Your task to perform on an android device: View the shopping cart on bestbuy.com. Search for "sony triple a" on bestbuy.com, select the first entry, and add it to the cart. Image 0: 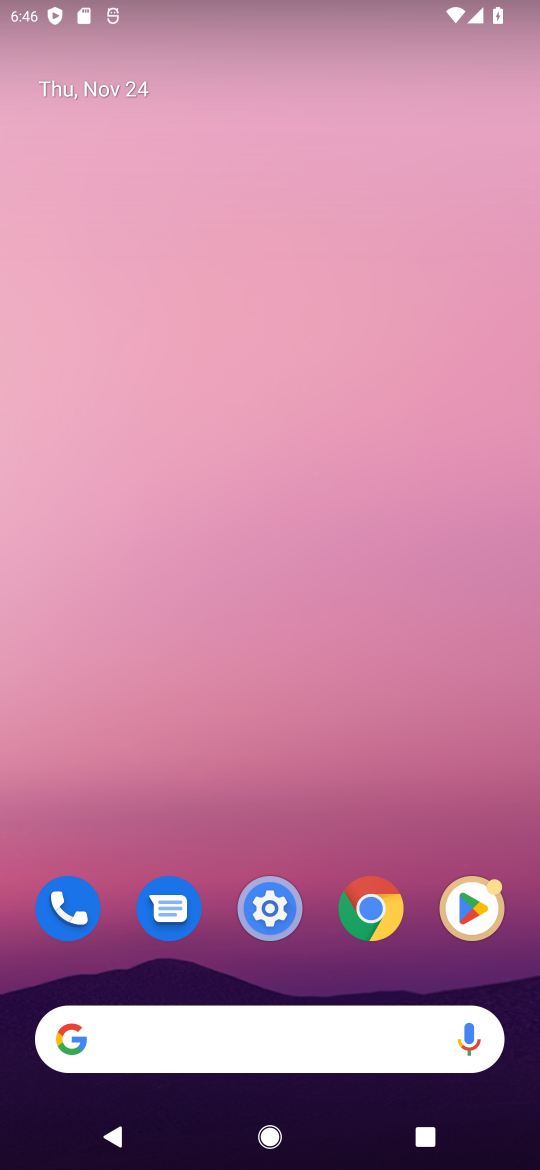
Step 0: click (126, 1050)
Your task to perform on an android device: View the shopping cart on bestbuy.com. Search for "sony triple a" on bestbuy.com, select the first entry, and add it to the cart. Image 1: 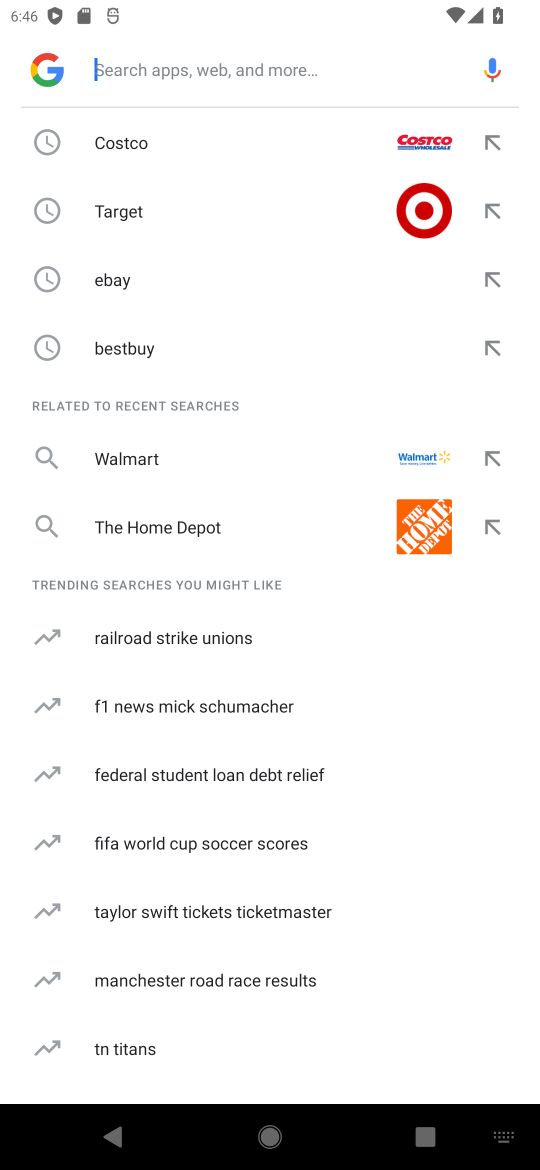
Step 1: type "bestbuy"
Your task to perform on an android device: View the shopping cart on bestbuy.com. Search for "sony triple a" on bestbuy.com, select the first entry, and add it to the cart. Image 2: 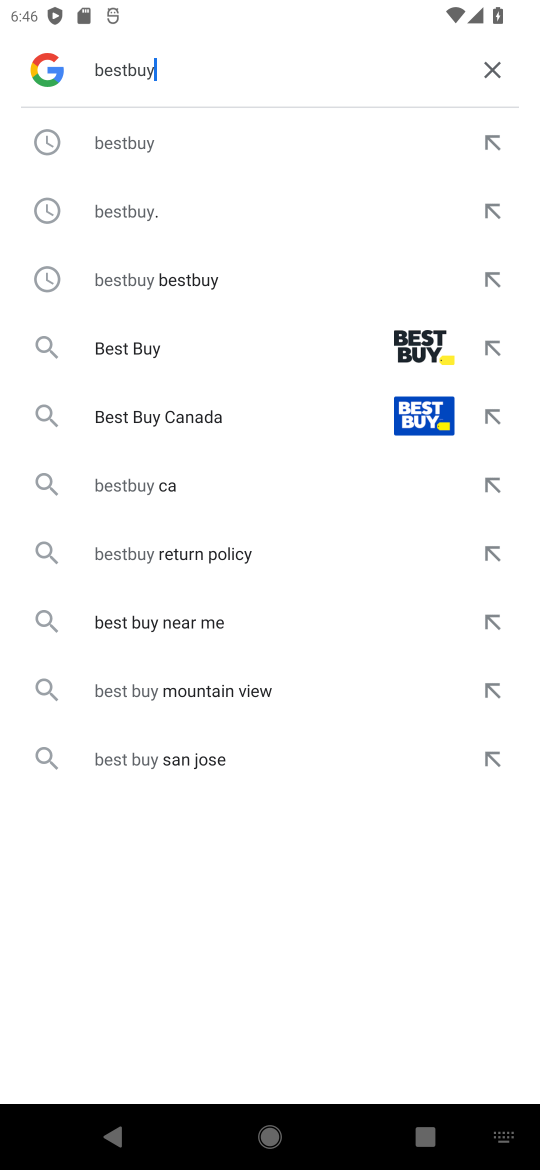
Step 2: click (174, 345)
Your task to perform on an android device: View the shopping cart on bestbuy.com. Search for "sony triple a" on bestbuy.com, select the first entry, and add it to the cart. Image 3: 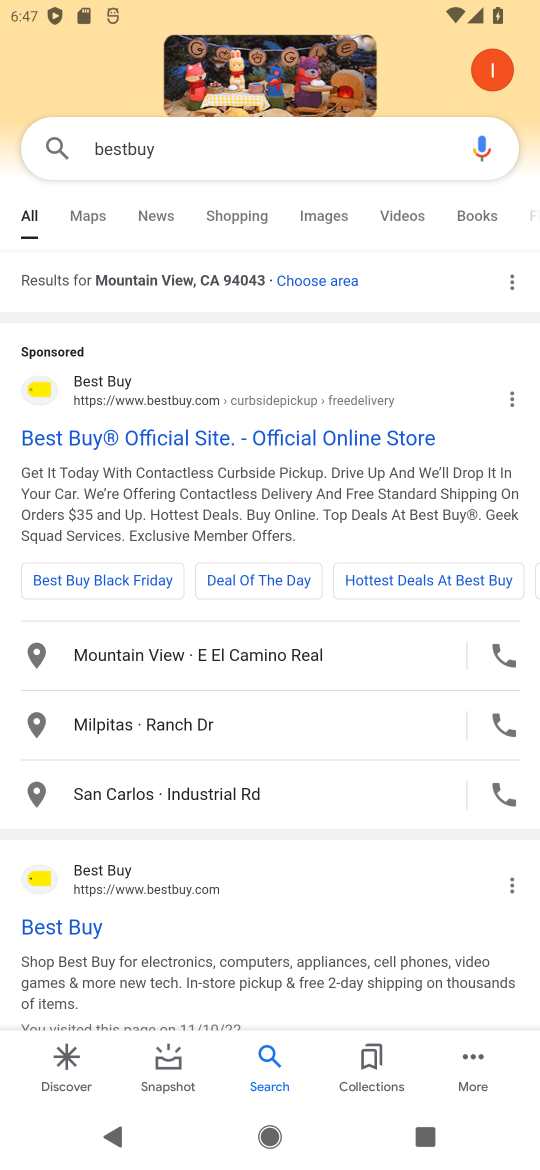
Step 3: click (151, 425)
Your task to perform on an android device: View the shopping cart on bestbuy.com. Search for "sony triple a" on bestbuy.com, select the first entry, and add it to the cart. Image 4: 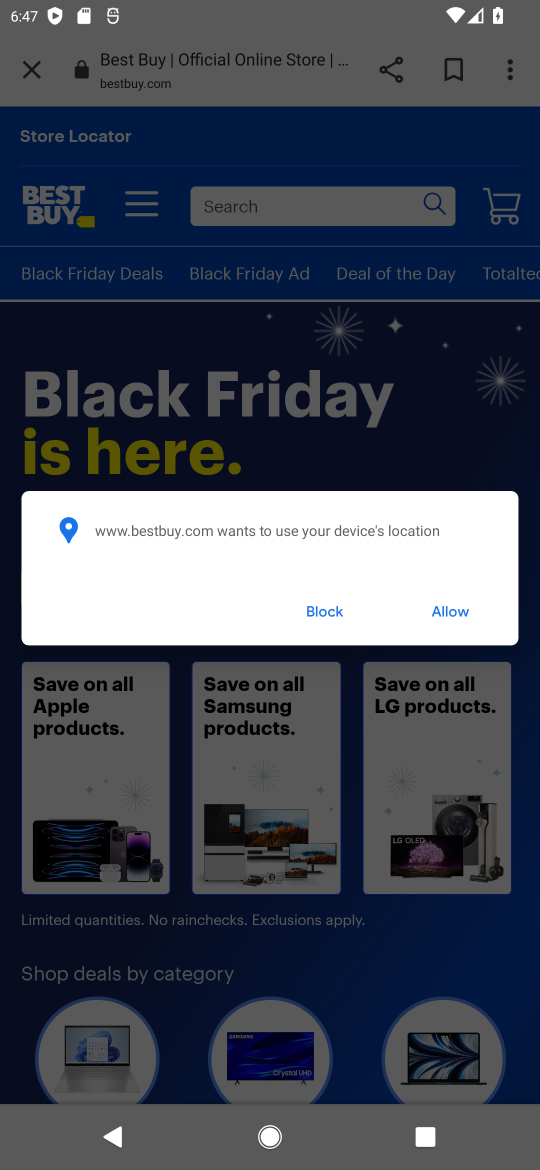
Step 4: click (464, 623)
Your task to perform on an android device: View the shopping cart on bestbuy.com. Search for "sony triple a" on bestbuy.com, select the first entry, and add it to the cart. Image 5: 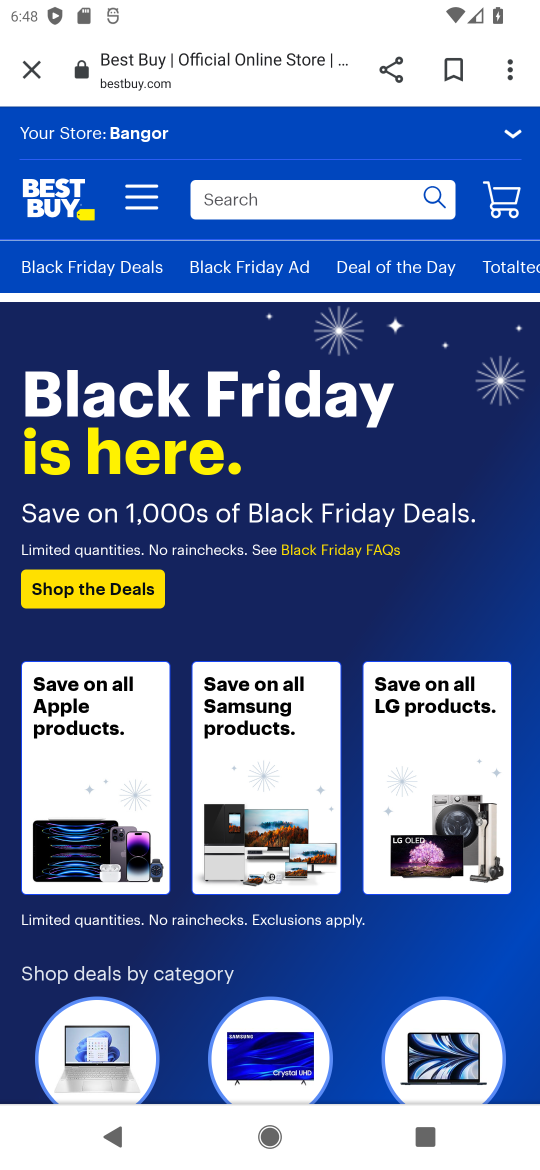
Step 5: task complete